Your task to perform on an android device: delete browsing data in the chrome app Image 0: 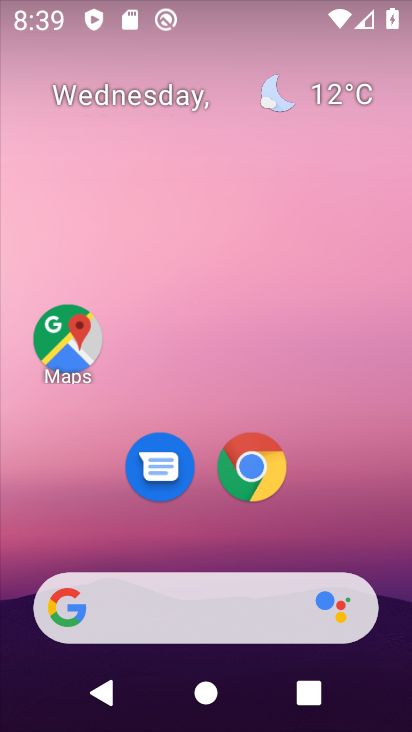
Step 0: click (248, 462)
Your task to perform on an android device: delete browsing data in the chrome app Image 1: 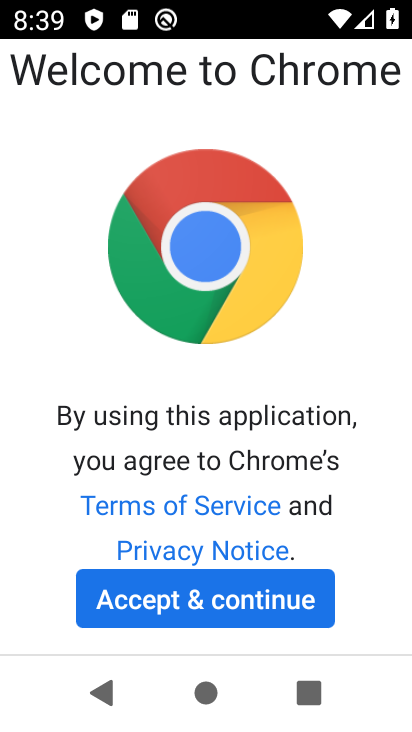
Step 1: click (228, 595)
Your task to perform on an android device: delete browsing data in the chrome app Image 2: 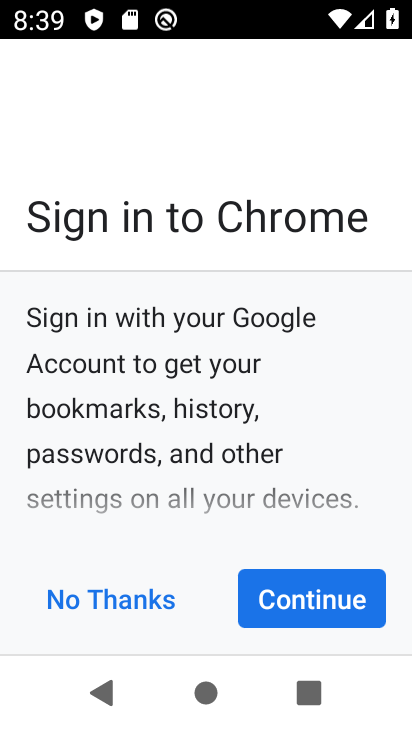
Step 2: click (325, 607)
Your task to perform on an android device: delete browsing data in the chrome app Image 3: 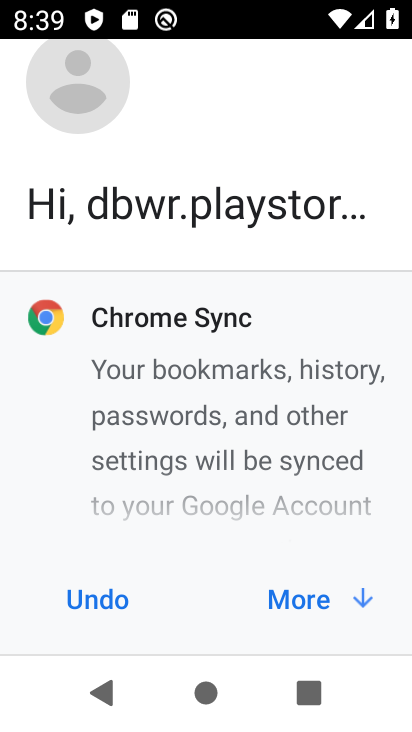
Step 3: click (312, 607)
Your task to perform on an android device: delete browsing data in the chrome app Image 4: 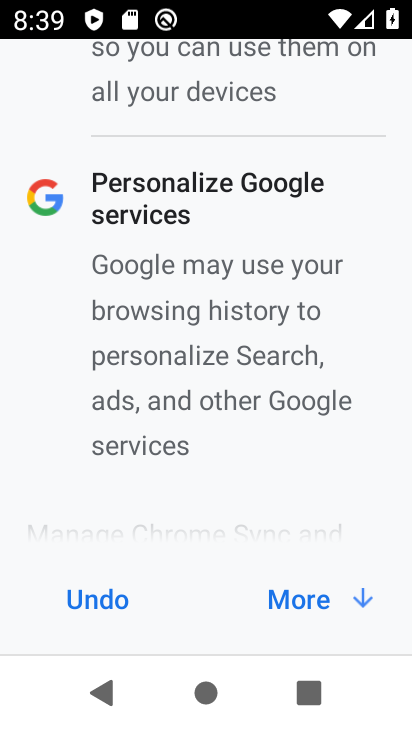
Step 4: click (312, 607)
Your task to perform on an android device: delete browsing data in the chrome app Image 5: 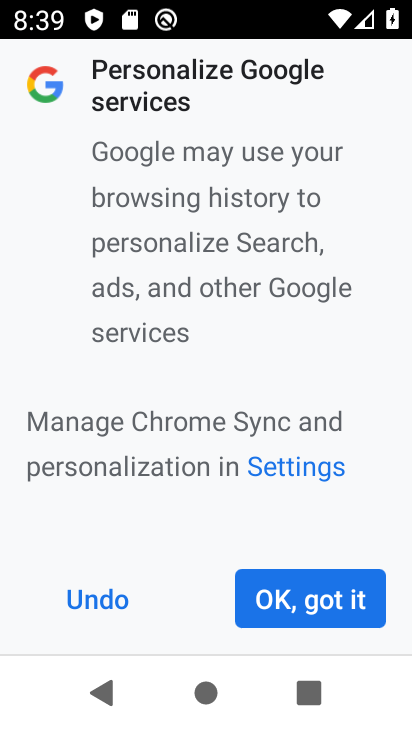
Step 5: click (312, 607)
Your task to perform on an android device: delete browsing data in the chrome app Image 6: 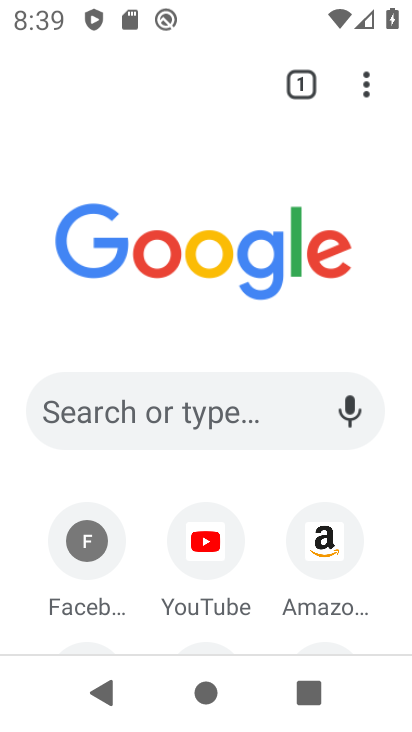
Step 6: click (369, 77)
Your task to perform on an android device: delete browsing data in the chrome app Image 7: 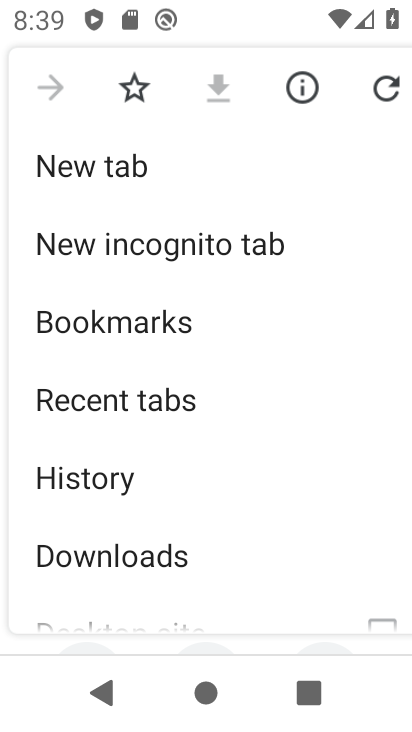
Step 7: click (133, 479)
Your task to perform on an android device: delete browsing data in the chrome app Image 8: 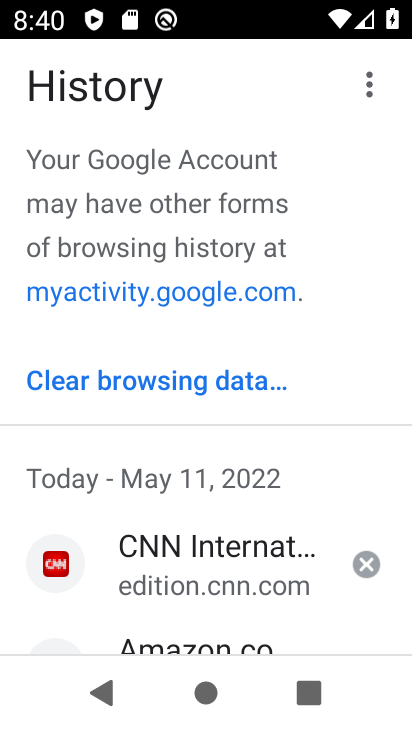
Step 8: click (87, 378)
Your task to perform on an android device: delete browsing data in the chrome app Image 9: 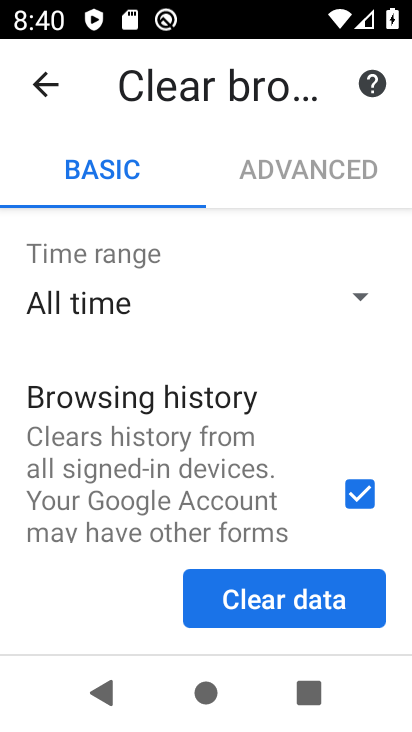
Step 9: click (286, 590)
Your task to perform on an android device: delete browsing data in the chrome app Image 10: 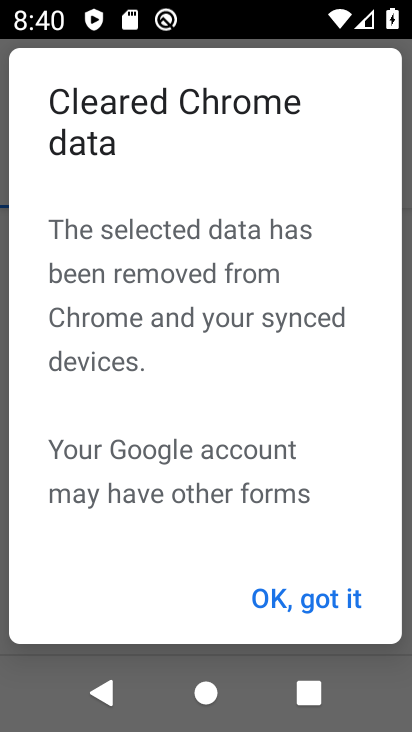
Step 10: click (299, 591)
Your task to perform on an android device: delete browsing data in the chrome app Image 11: 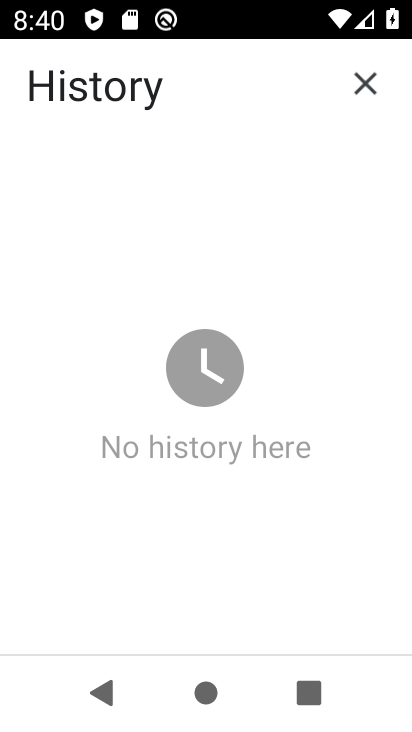
Step 11: task complete